Your task to perform on an android device: open wifi settings Image 0: 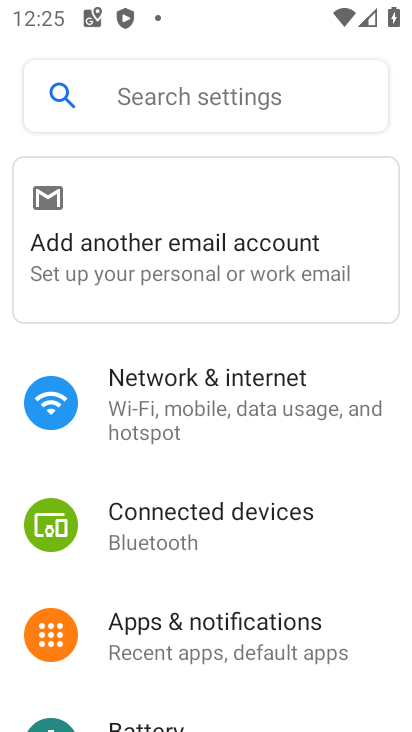
Step 0: press home button
Your task to perform on an android device: open wifi settings Image 1: 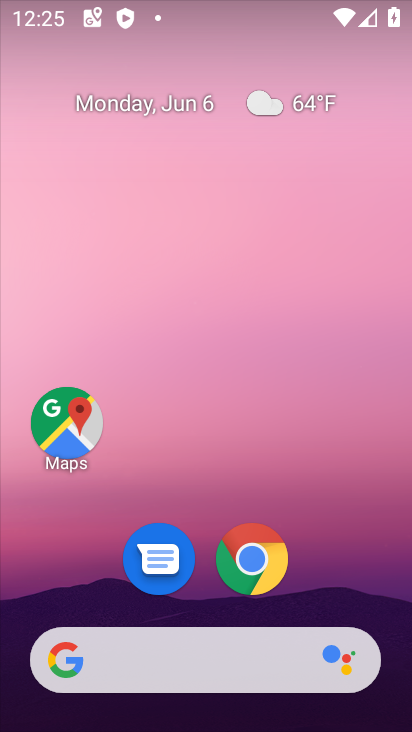
Step 1: drag from (206, 648) to (286, 175)
Your task to perform on an android device: open wifi settings Image 2: 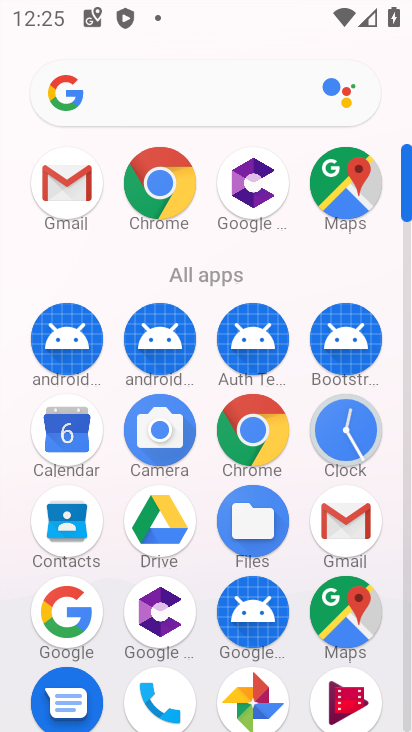
Step 2: drag from (116, 573) to (138, 389)
Your task to perform on an android device: open wifi settings Image 3: 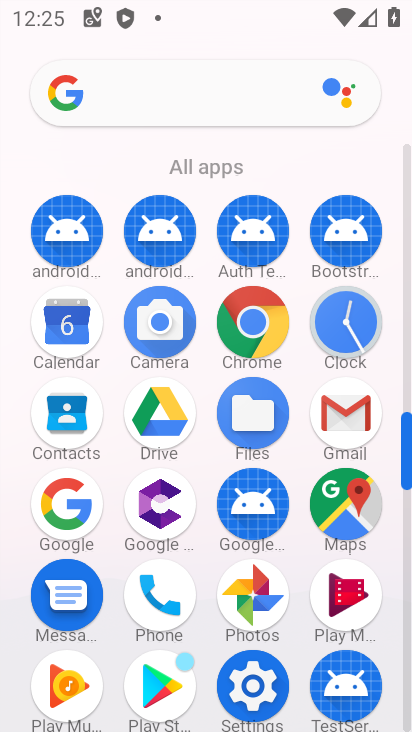
Step 3: click (261, 698)
Your task to perform on an android device: open wifi settings Image 4: 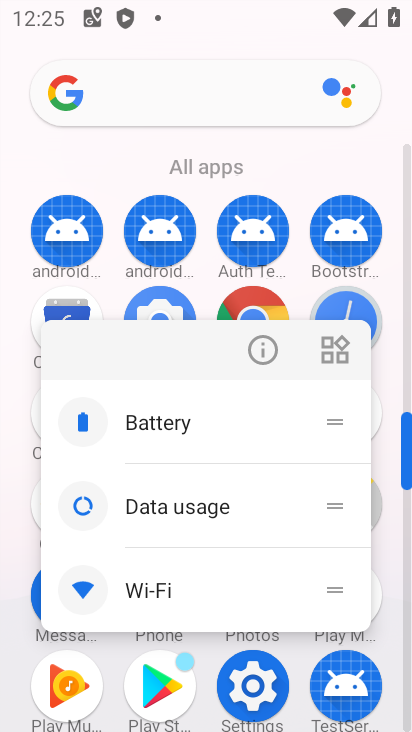
Step 4: click (266, 678)
Your task to perform on an android device: open wifi settings Image 5: 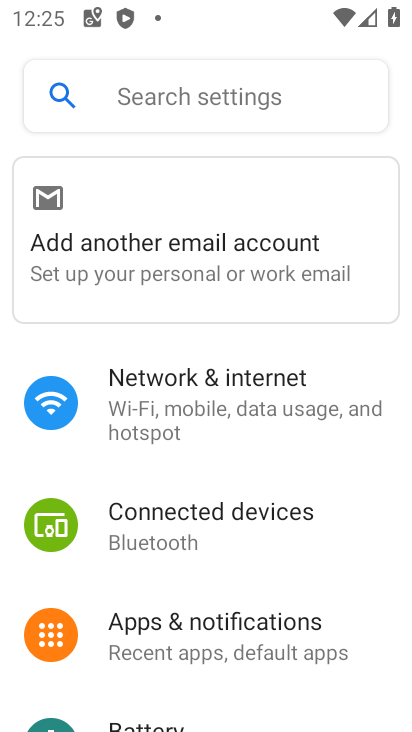
Step 5: click (182, 388)
Your task to perform on an android device: open wifi settings Image 6: 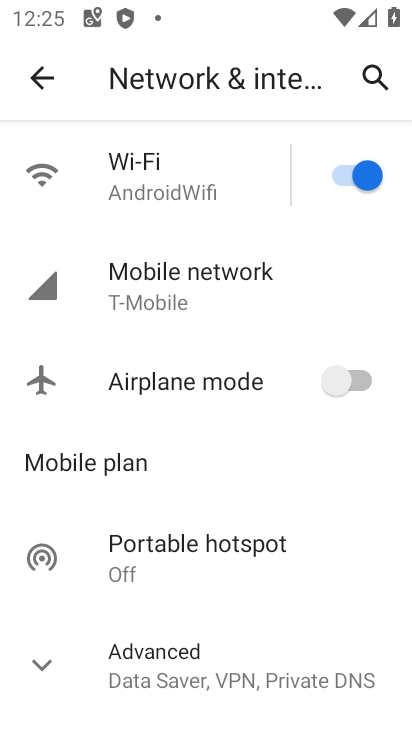
Step 6: click (184, 193)
Your task to perform on an android device: open wifi settings Image 7: 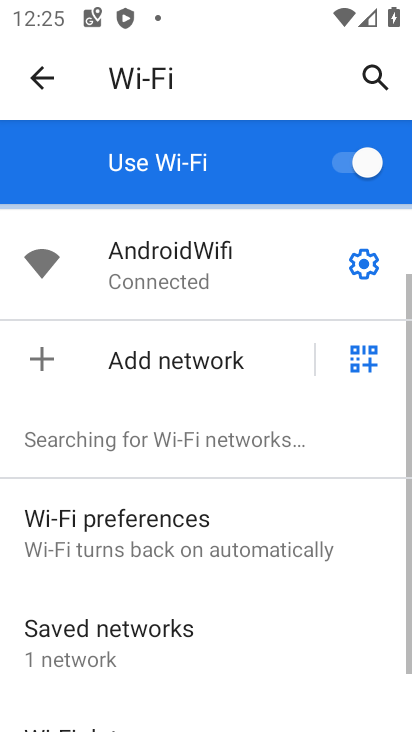
Step 7: task complete